Your task to perform on an android device: What's the weather today? Image 0: 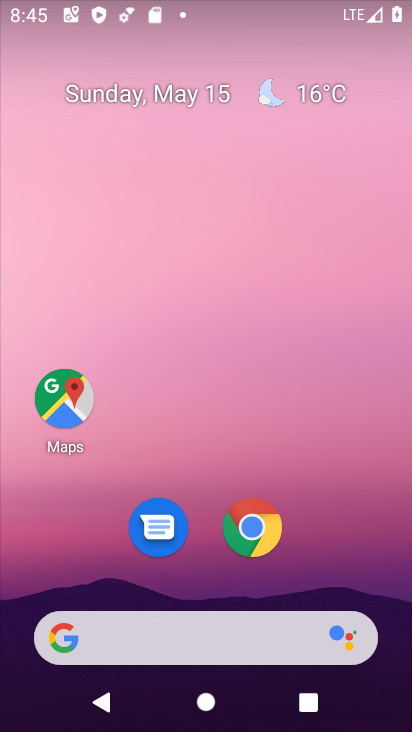
Step 0: click (322, 95)
Your task to perform on an android device: What's the weather today? Image 1: 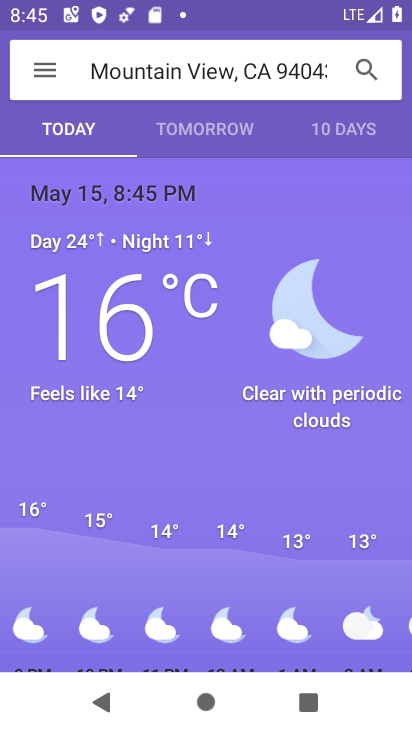
Step 1: task complete